Your task to perform on an android device: show emergency info Image 0: 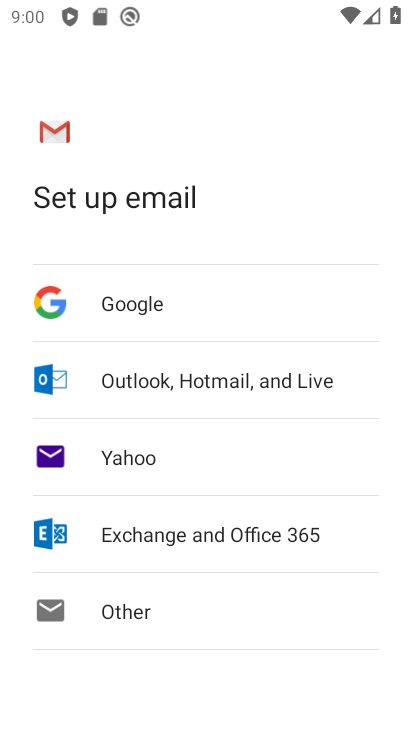
Step 0: press home button
Your task to perform on an android device: show emergency info Image 1: 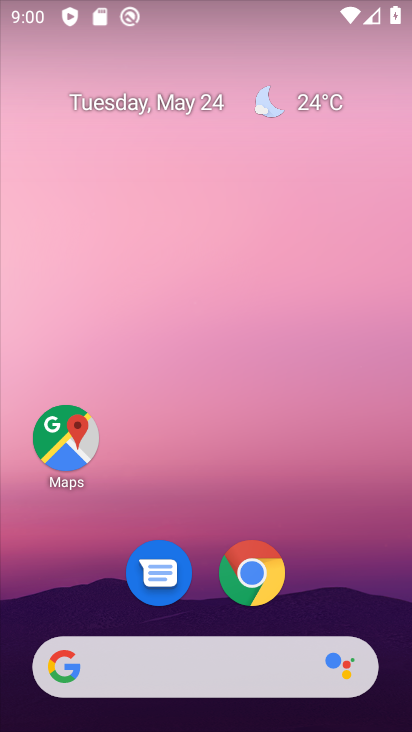
Step 1: drag from (55, 615) to (209, 180)
Your task to perform on an android device: show emergency info Image 2: 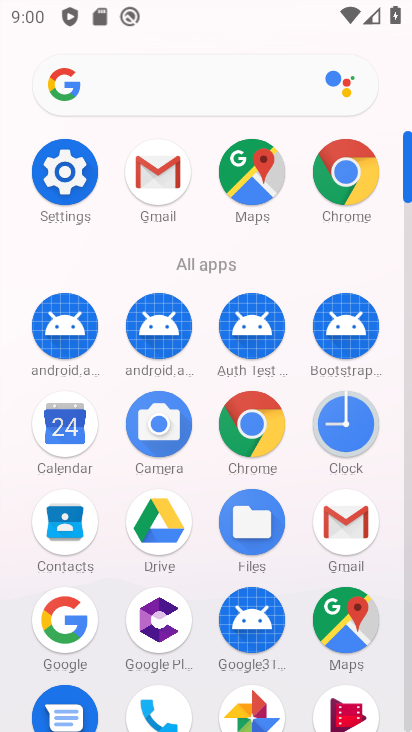
Step 2: drag from (175, 722) to (298, 335)
Your task to perform on an android device: show emergency info Image 3: 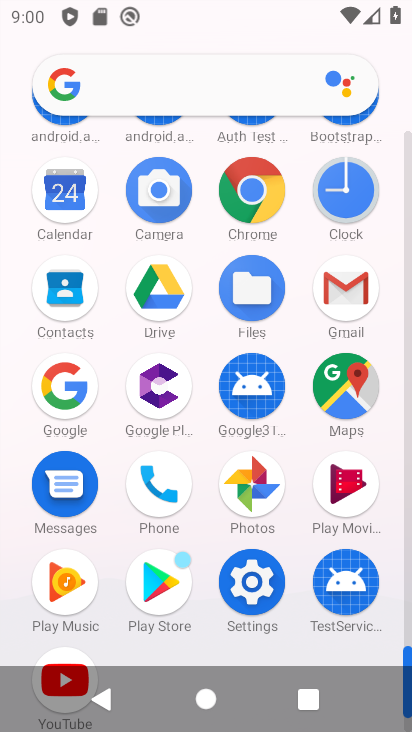
Step 3: click (255, 603)
Your task to perform on an android device: show emergency info Image 4: 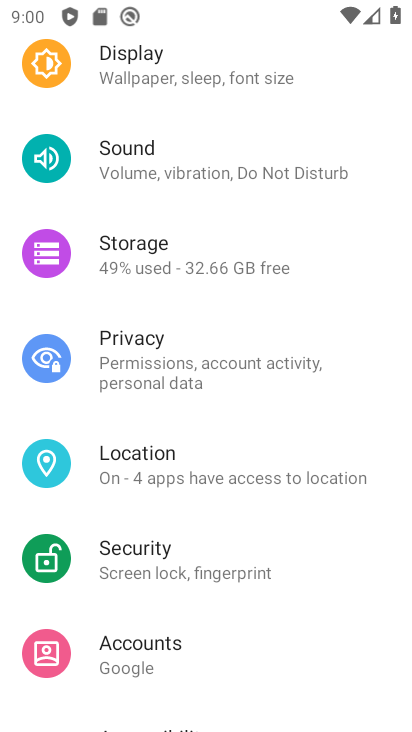
Step 4: drag from (242, 614) to (410, 228)
Your task to perform on an android device: show emergency info Image 5: 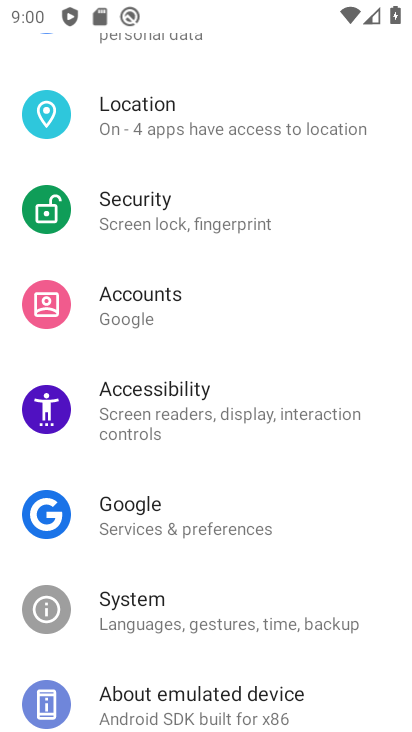
Step 5: drag from (106, 627) to (314, 112)
Your task to perform on an android device: show emergency info Image 6: 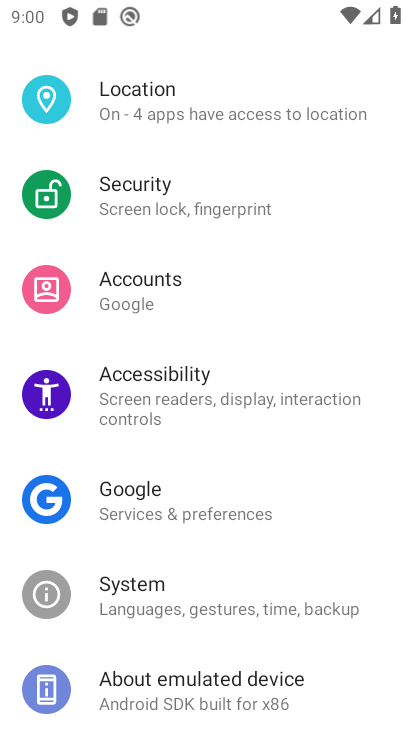
Step 6: click (166, 693)
Your task to perform on an android device: show emergency info Image 7: 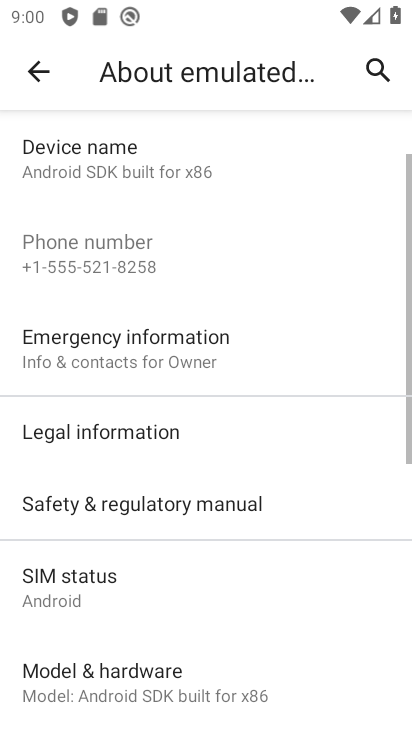
Step 7: click (186, 336)
Your task to perform on an android device: show emergency info Image 8: 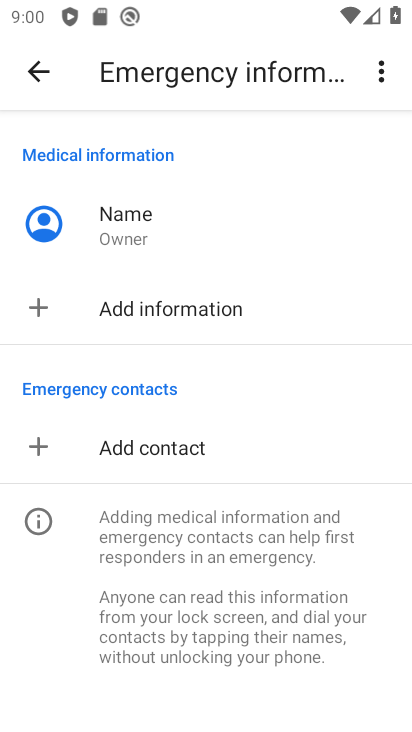
Step 8: task complete